Your task to perform on an android device: Open calendar and show me the third week of next month Image 0: 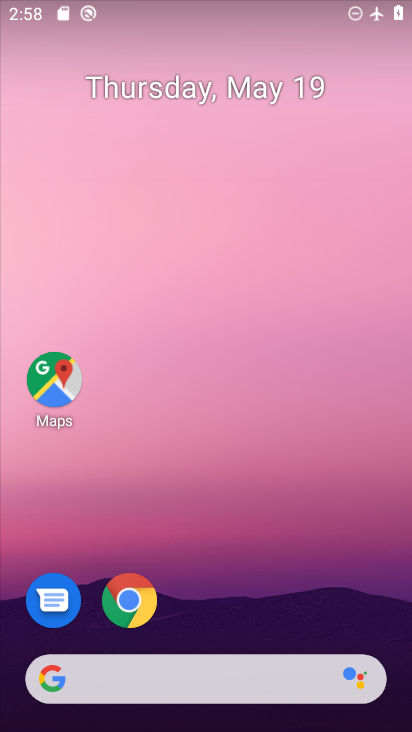
Step 0: drag from (390, 623) to (374, 259)
Your task to perform on an android device: Open calendar and show me the third week of next month Image 1: 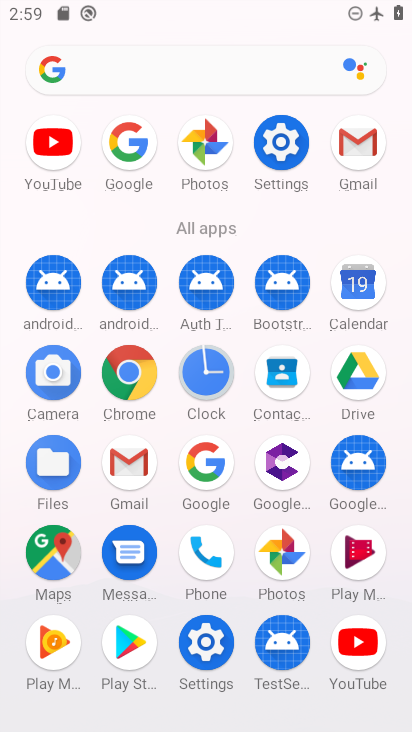
Step 1: click (327, 292)
Your task to perform on an android device: Open calendar and show me the third week of next month Image 2: 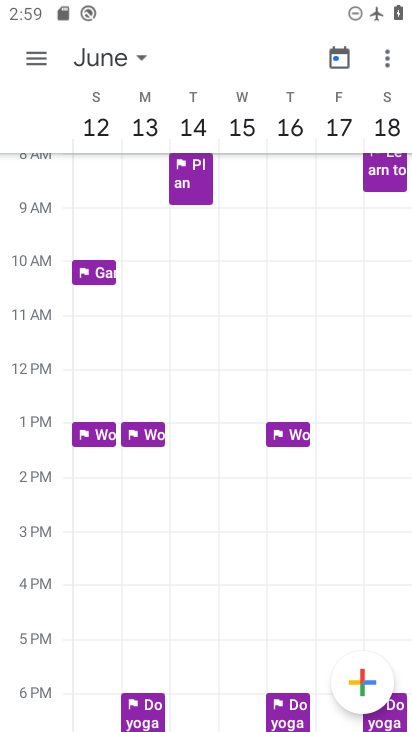
Step 2: click (29, 55)
Your task to perform on an android device: Open calendar and show me the third week of next month Image 3: 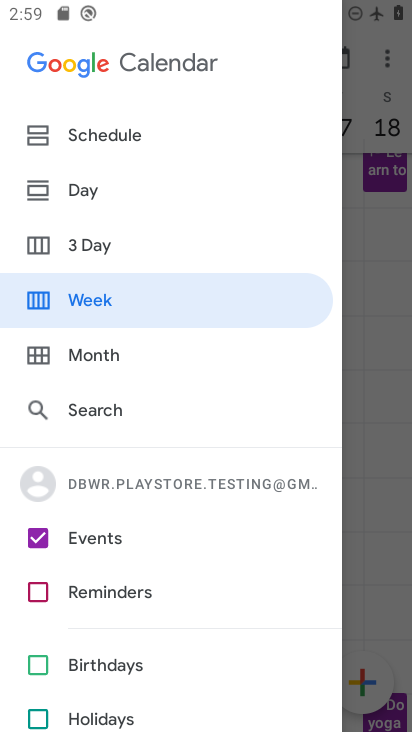
Step 3: press back button
Your task to perform on an android device: Open calendar and show me the third week of next month Image 4: 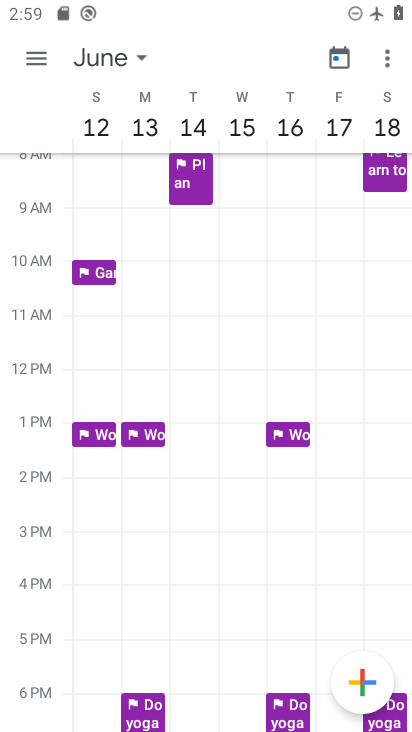
Step 4: click (128, 61)
Your task to perform on an android device: Open calendar and show me the third week of next month Image 5: 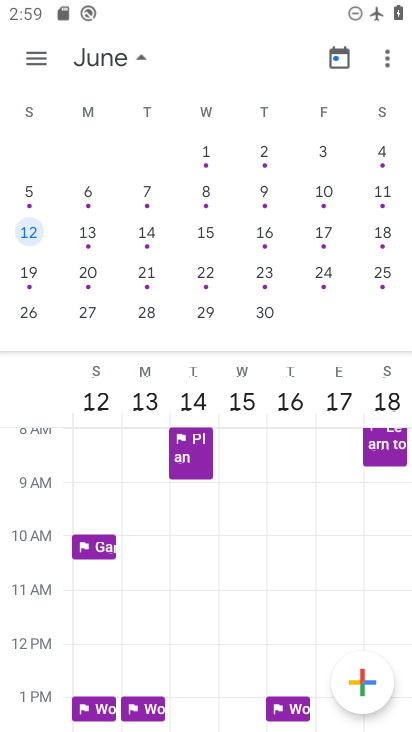
Step 5: drag from (399, 235) to (221, 232)
Your task to perform on an android device: Open calendar and show me the third week of next month Image 6: 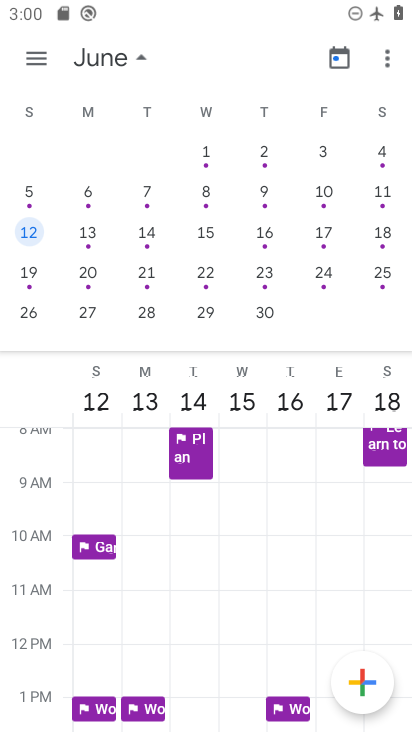
Step 6: drag from (72, 154) to (396, 155)
Your task to perform on an android device: Open calendar and show me the third week of next month Image 7: 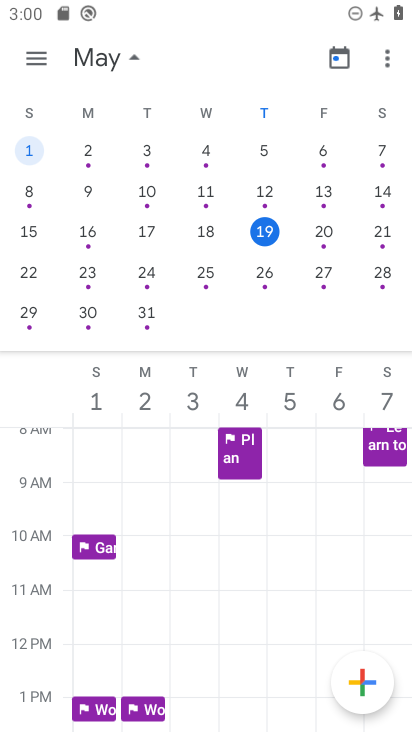
Step 7: drag from (397, 165) to (126, 112)
Your task to perform on an android device: Open calendar and show me the third week of next month Image 8: 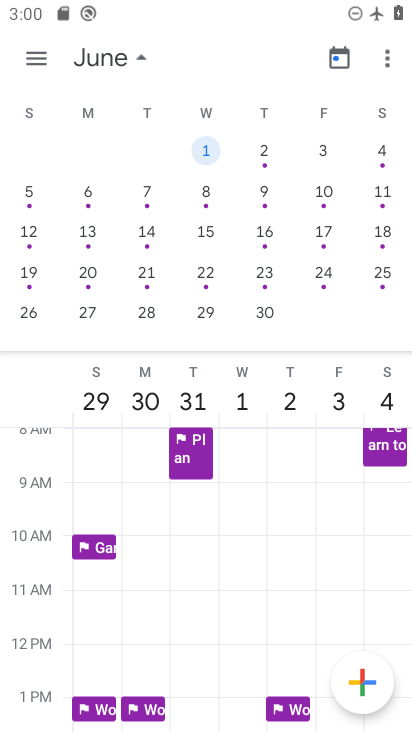
Step 8: click (264, 227)
Your task to perform on an android device: Open calendar and show me the third week of next month Image 9: 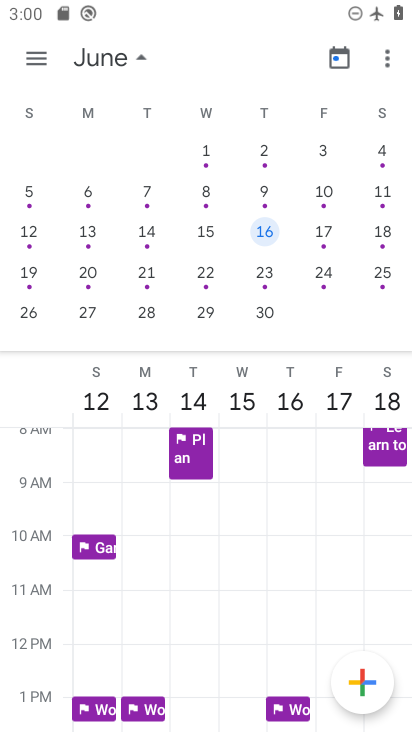
Step 9: click (35, 56)
Your task to perform on an android device: Open calendar and show me the third week of next month Image 10: 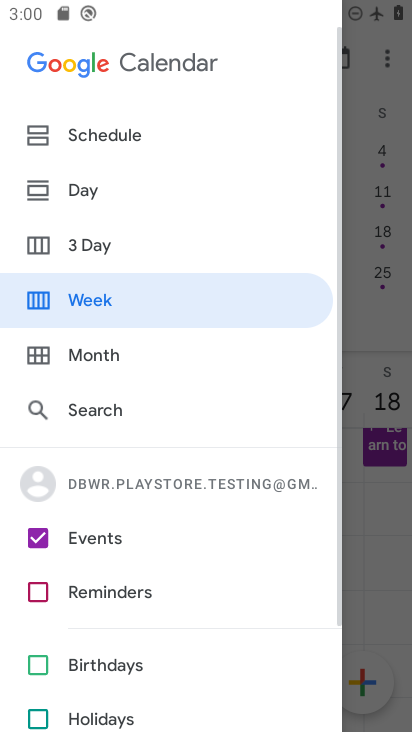
Step 10: click (75, 296)
Your task to perform on an android device: Open calendar and show me the third week of next month Image 11: 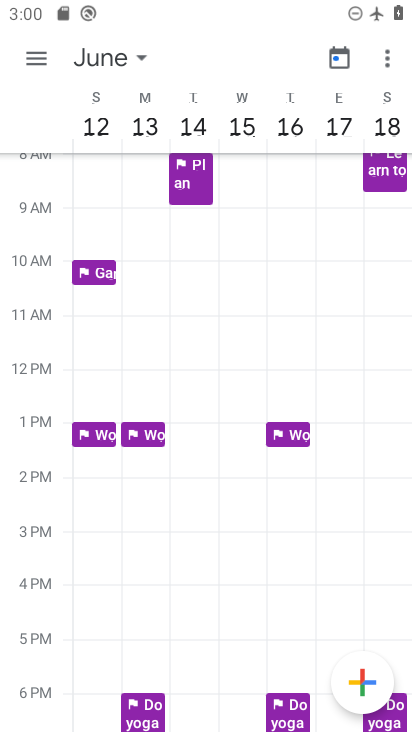
Step 11: task complete